Your task to perform on an android device: Open the map Image 0: 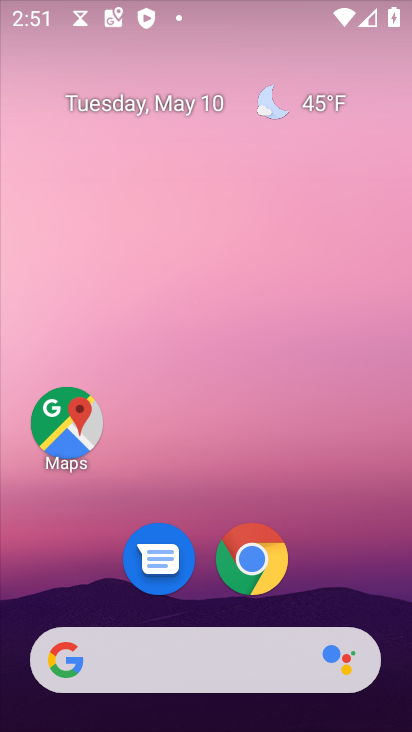
Step 0: drag from (280, 461) to (152, 55)
Your task to perform on an android device: Open the map Image 1: 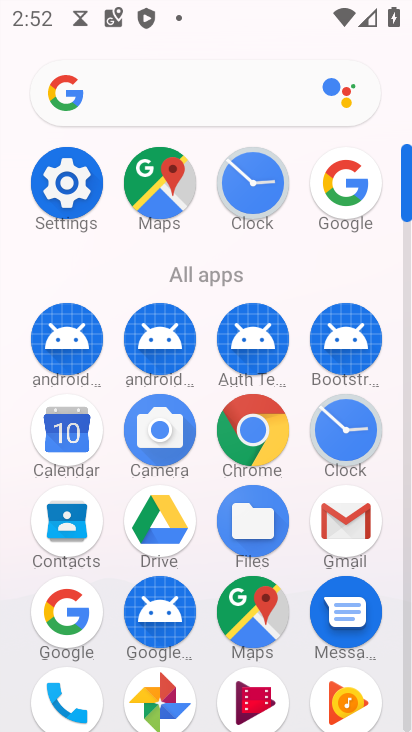
Step 1: click (158, 185)
Your task to perform on an android device: Open the map Image 2: 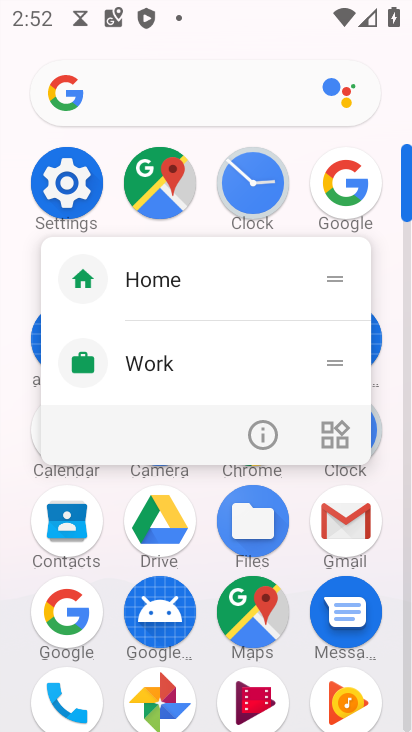
Step 2: click (155, 189)
Your task to perform on an android device: Open the map Image 3: 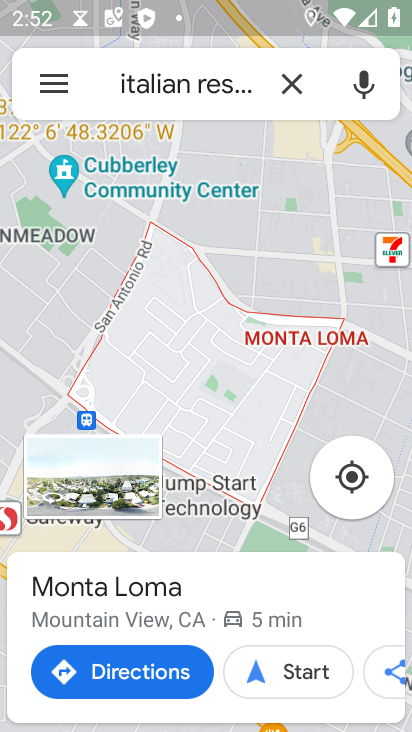
Step 3: click (295, 83)
Your task to perform on an android device: Open the map Image 4: 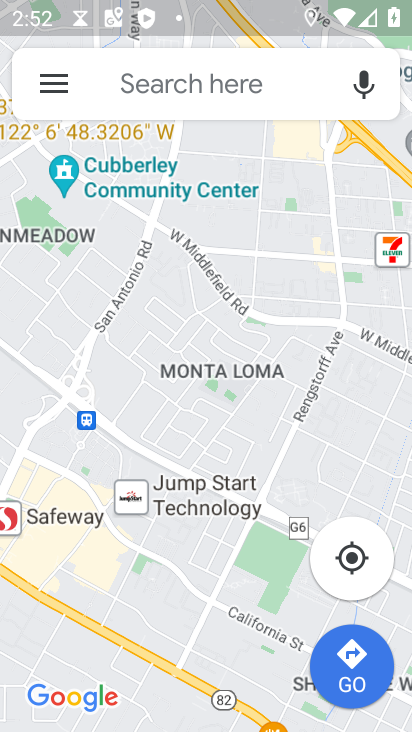
Step 4: task complete